Your task to perform on an android device: set the timer Image 0: 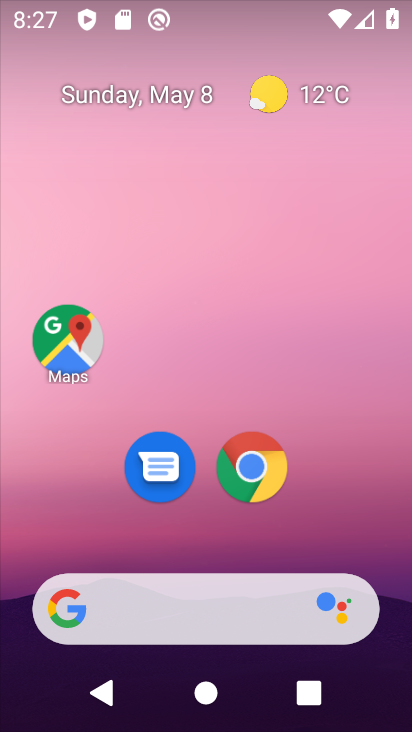
Step 0: drag from (198, 556) to (277, 122)
Your task to perform on an android device: set the timer Image 1: 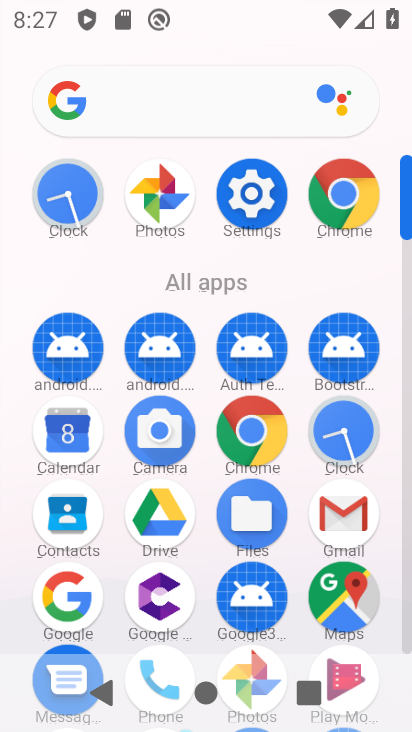
Step 1: click (358, 415)
Your task to perform on an android device: set the timer Image 2: 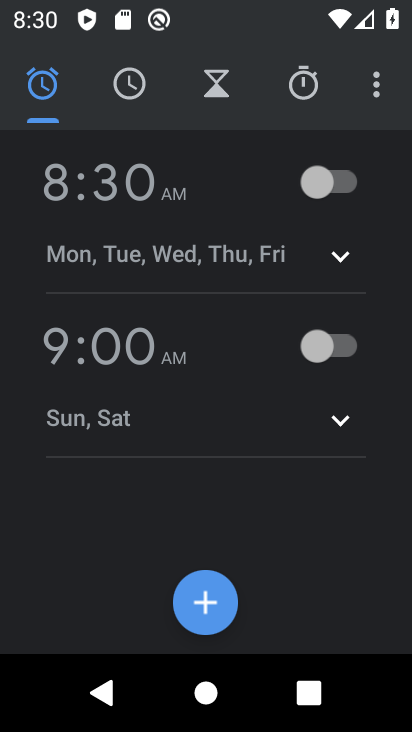
Step 2: click (222, 88)
Your task to perform on an android device: set the timer Image 3: 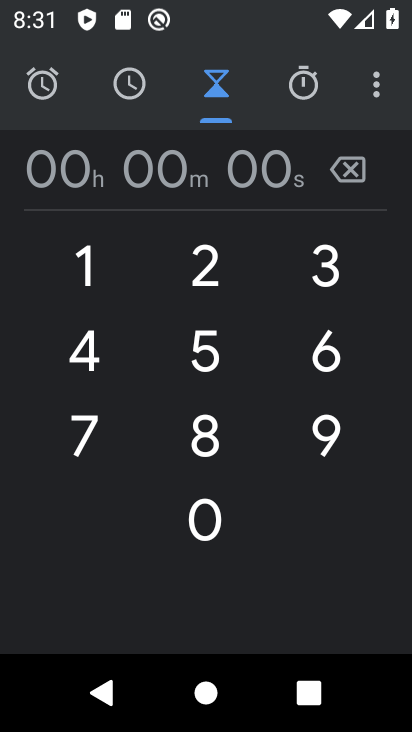
Step 3: click (211, 271)
Your task to perform on an android device: set the timer Image 4: 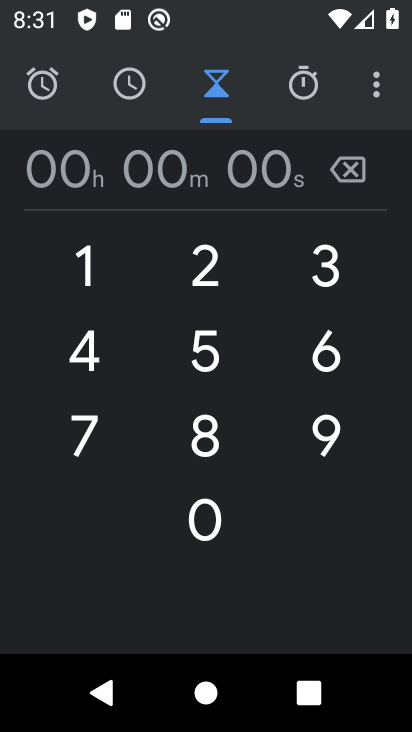
Step 4: click (200, 345)
Your task to perform on an android device: set the timer Image 5: 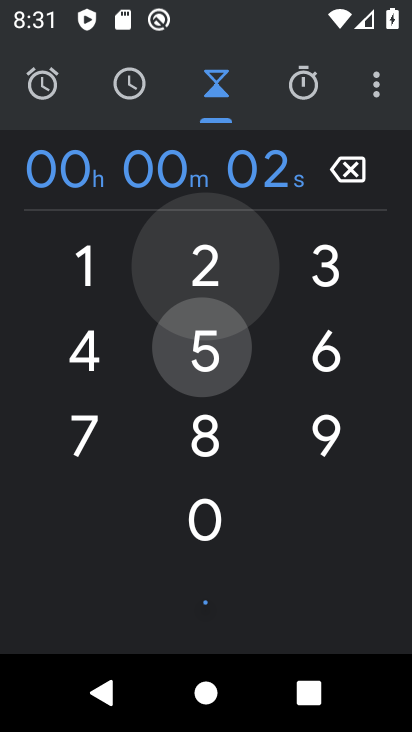
Step 5: click (328, 250)
Your task to perform on an android device: set the timer Image 6: 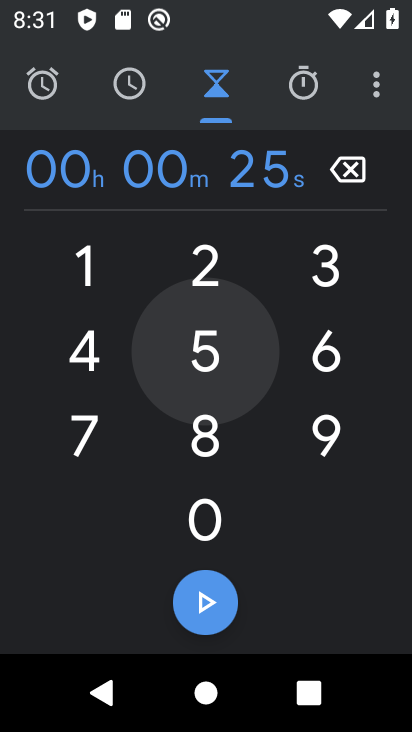
Step 6: click (215, 337)
Your task to perform on an android device: set the timer Image 7: 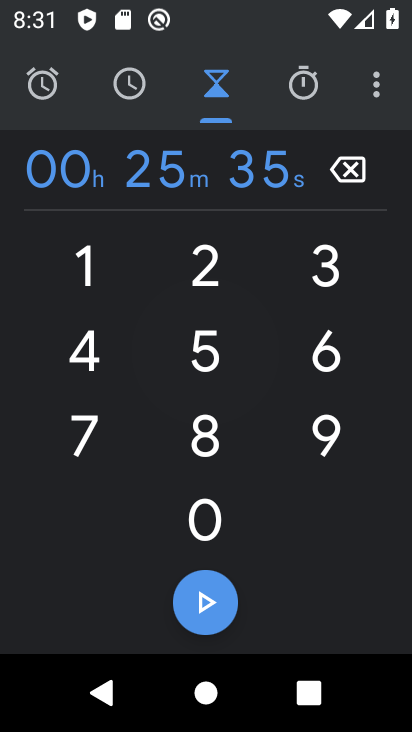
Step 7: click (331, 263)
Your task to perform on an android device: set the timer Image 8: 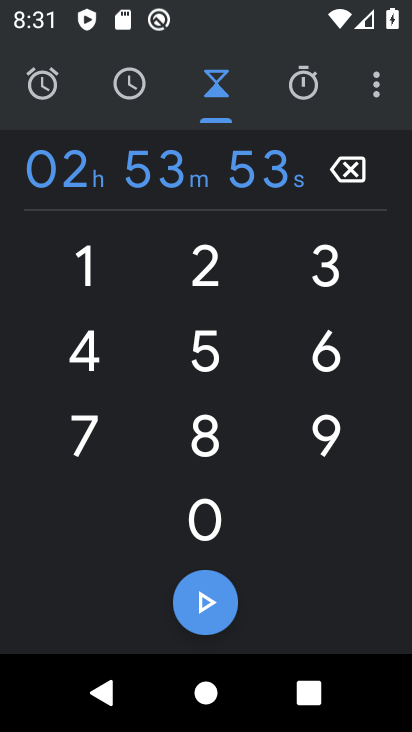
Step 8: task complete